Your task to perform on an android device: change text size in settings app Image 0: 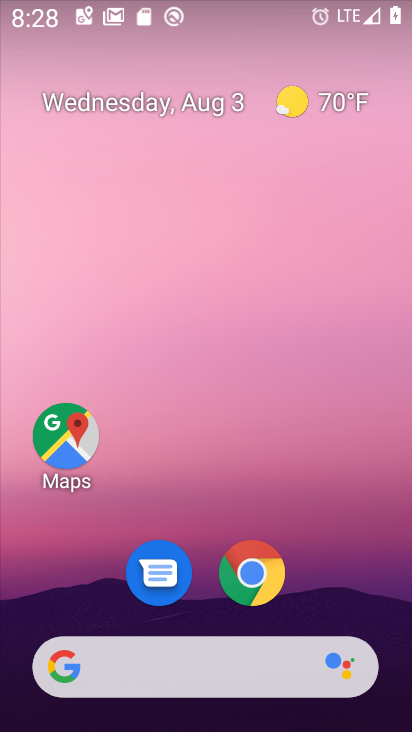
Step 0: drag from (336, 563) to (281, 13)
Your task to perform on an android device: change text size in settings app Image 1: 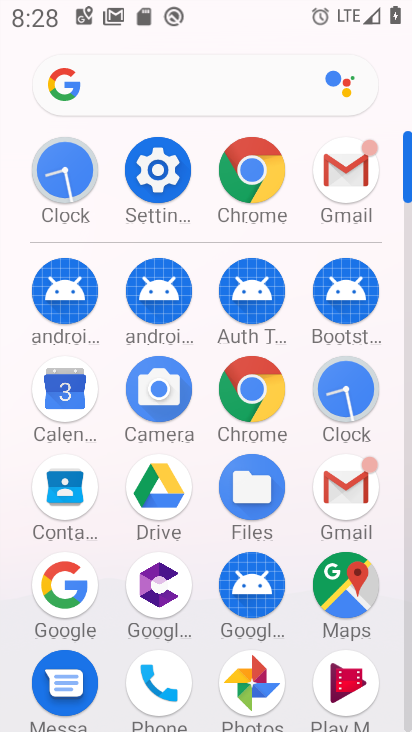
Step 1: click (156, 181)
Your task to perform on an android device: change text size in settings app Image 2: 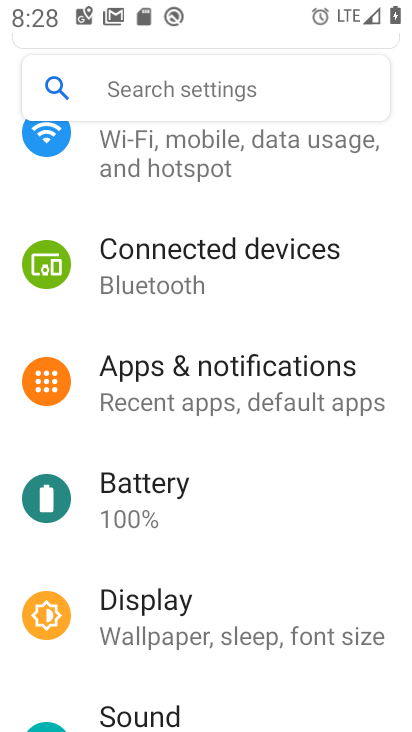
Step 2: click (164, 607)
Your task to perform on an android device: change text size in settings app Image 3: 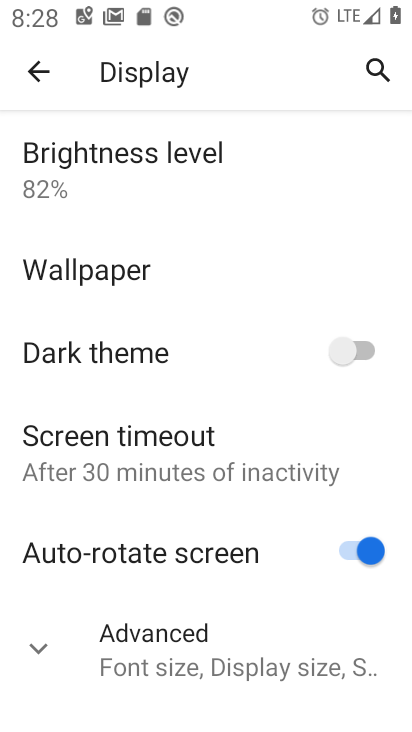
Step 3: drag from (116, 557) to (120, 316)
Your task to perform on an android device: change text size in settings app Image 4: 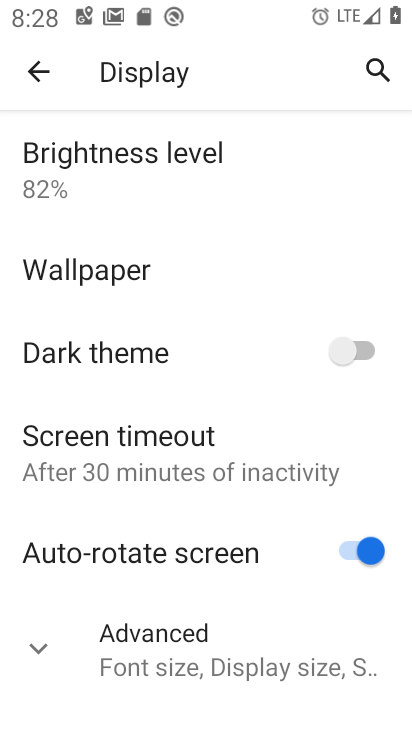
Step 4: click (39, 659)
Your task to perform on an android device: change text size in settings app Image 5: 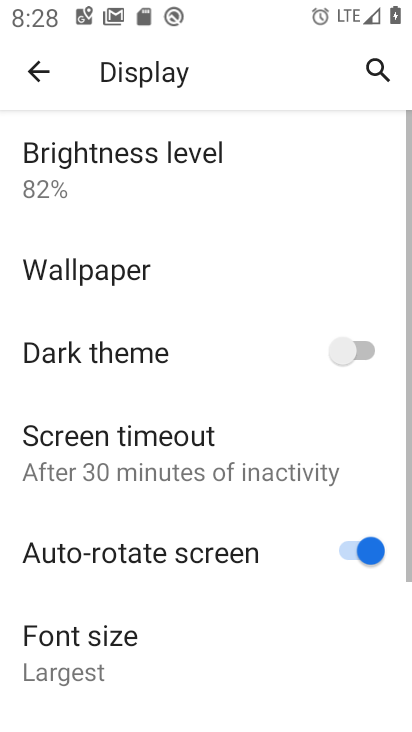
Step 5: click (39, 659)
Your task to perform on an android device: change text size in settings app Image 6: 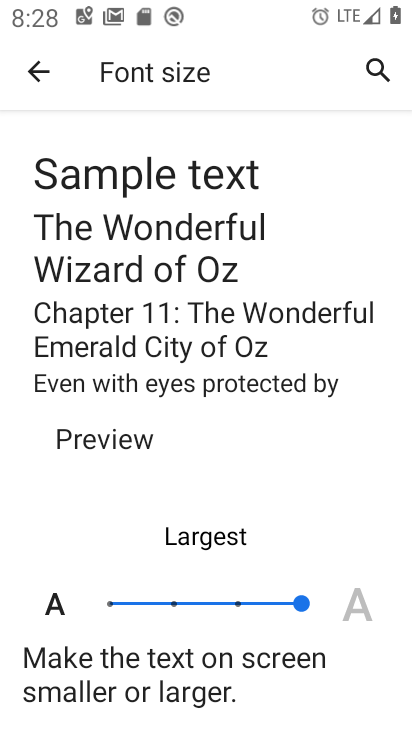
Step 6: click (234, 607)
Your task to perform on an android device: change text size in settings app Image 7: 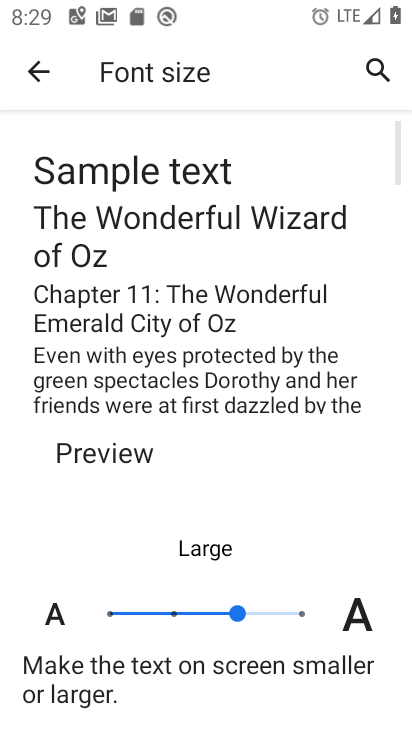
Step 7: task complete